Your task to perform on an android device: open app "ColorNote Notepad Notes" (install if not already installed) Image 0: 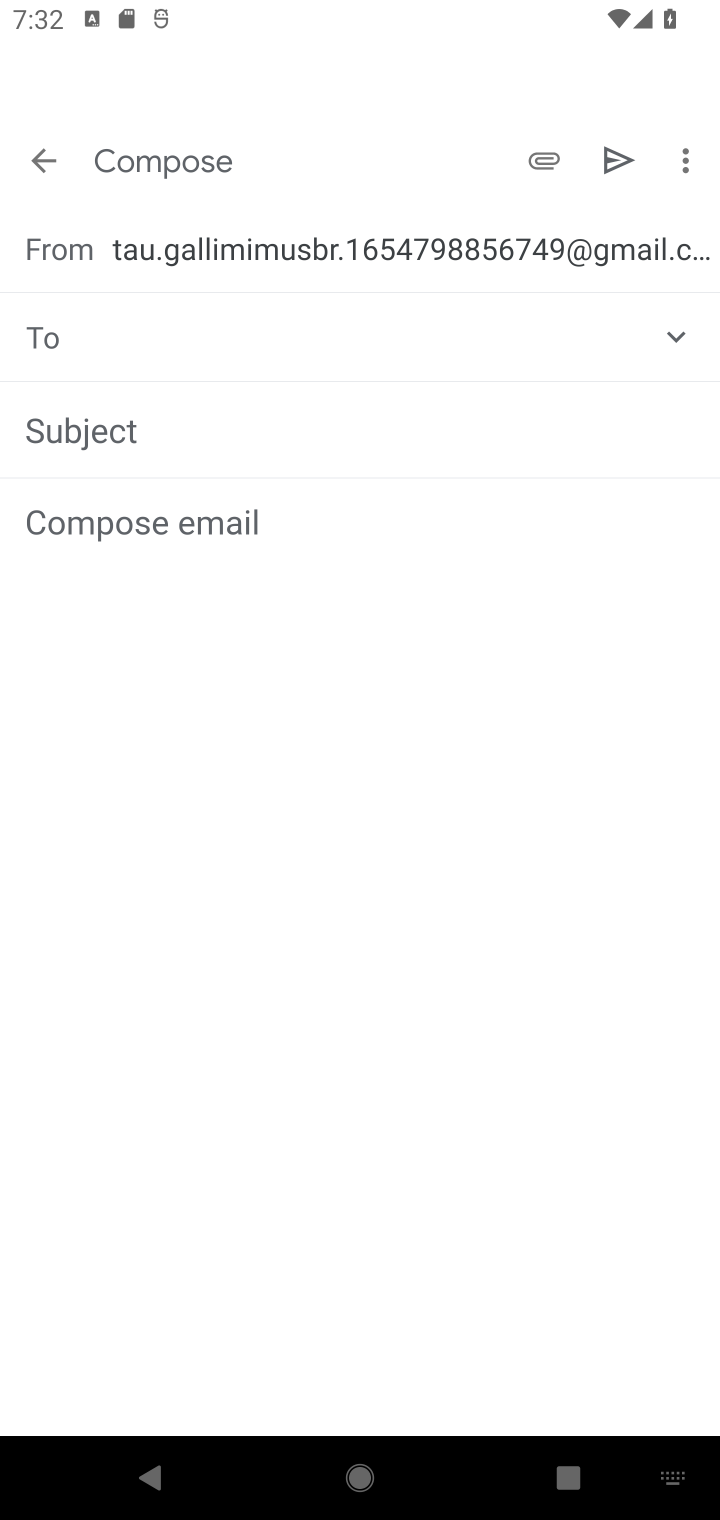
Step 0: press home button
Your task to perform on an android device: open app "ColorNote Notepad Notes" (install if not already installed) Image 1: 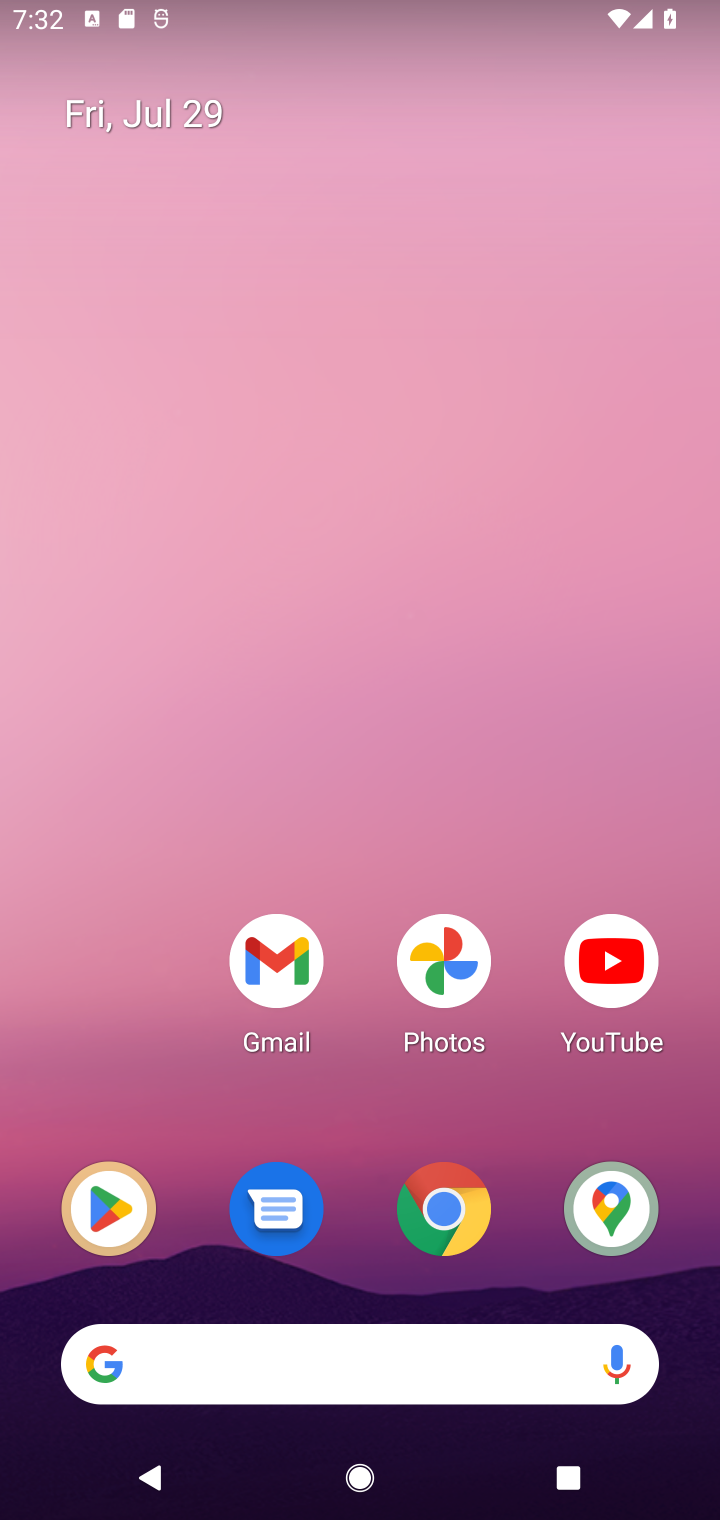
Step 1: click (127, 1198)
Your task to perform on an android device: open app "ColorNote Notepad Notes" (install if not already installed) Image 2: 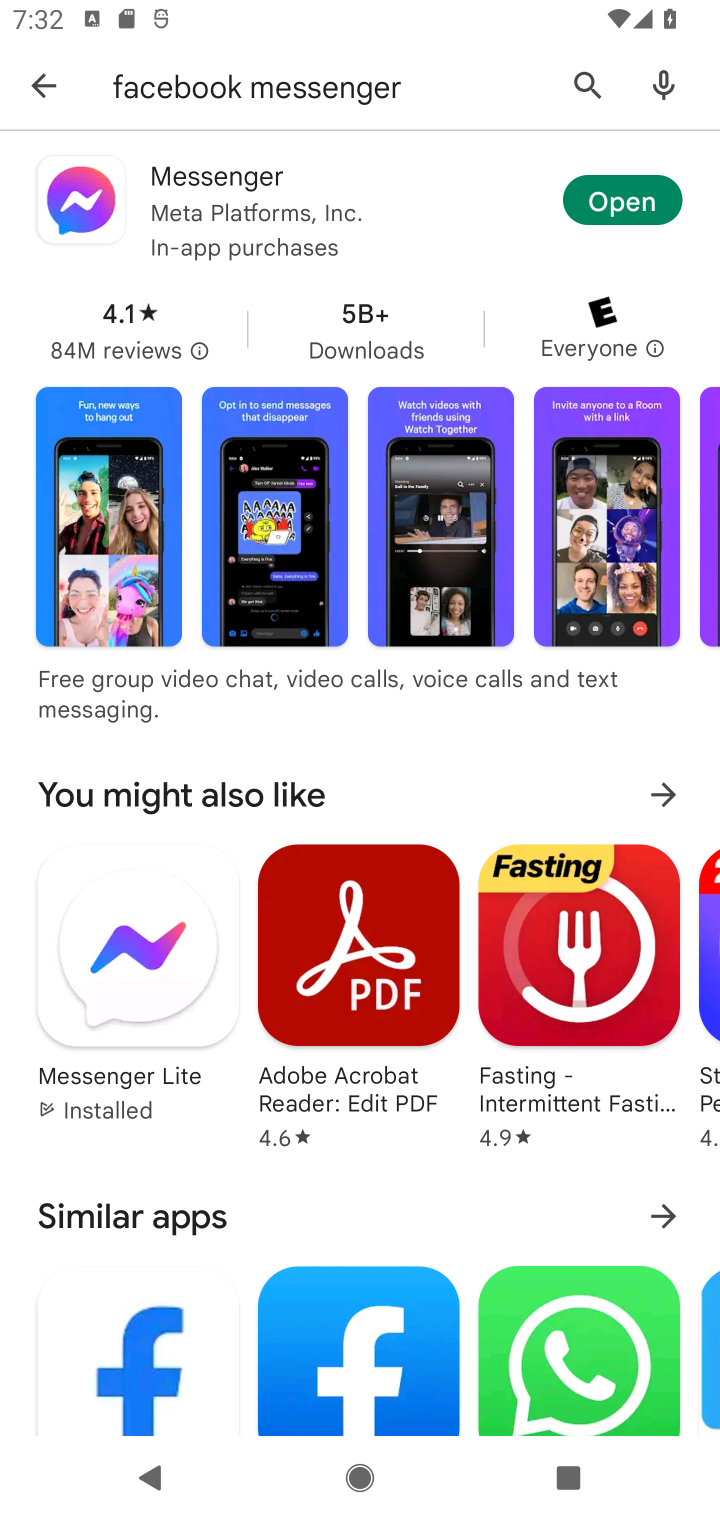
Step 2: click (571, 79)
Your task to perform on an android device: open app "ColorNote Notepad Notes" (install if not already installed) Image 3: 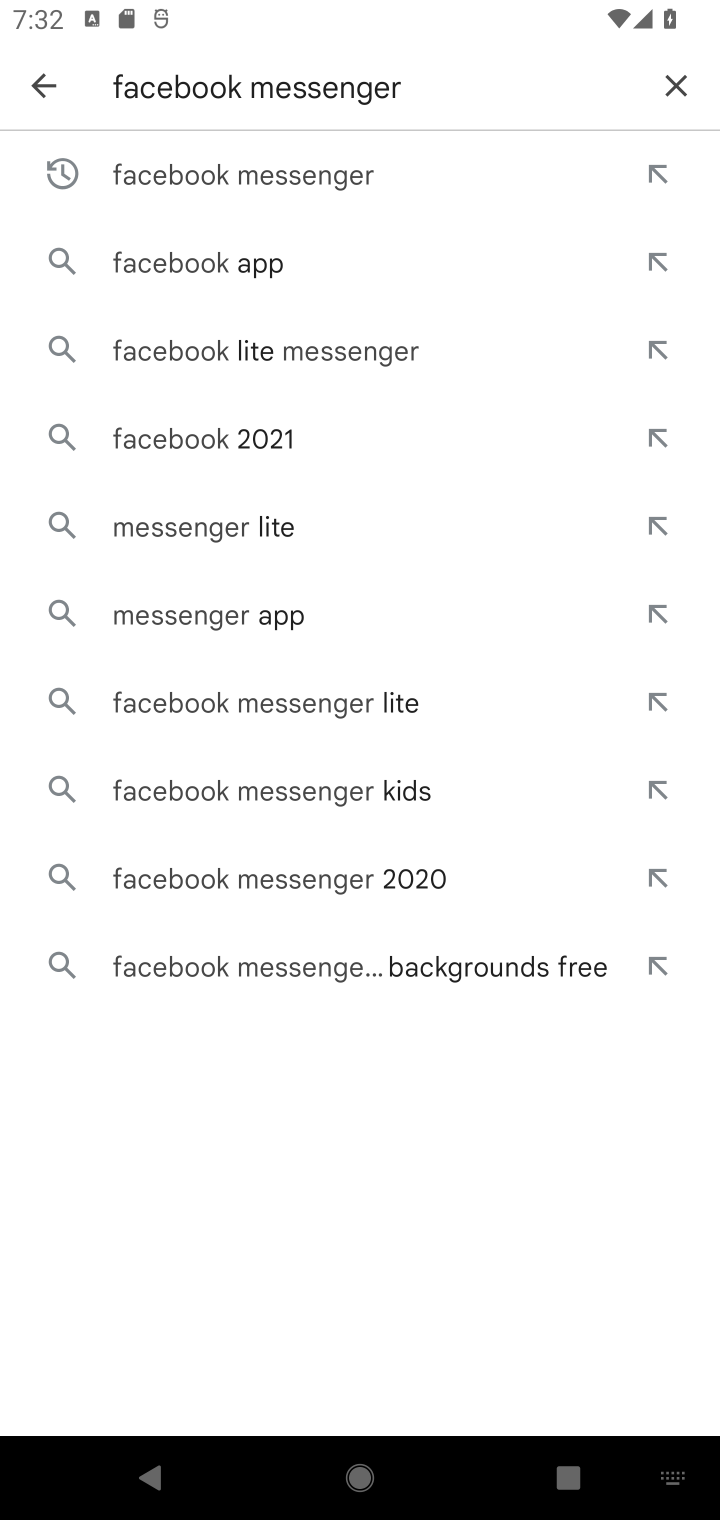
Step 3: click (666, 92)
Your task to perform on an android device: open app "ColorNote Notepad Notes" (install if not already installed) Image 4: 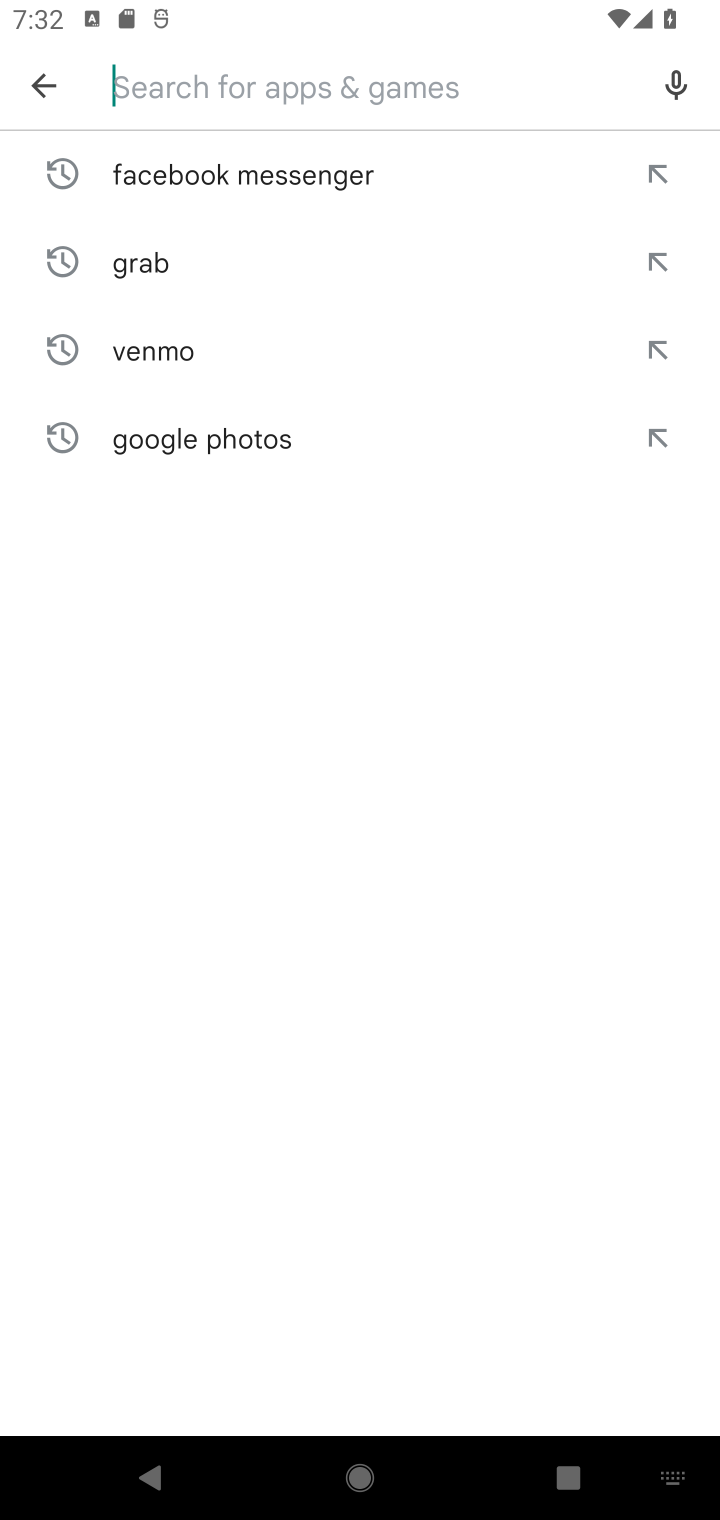
Step 4: type "ColorNote Notepad Notes"
Your task to perform on an android device: open app "ColorNote Notepad Notes" (install if not already installed) Image 5: 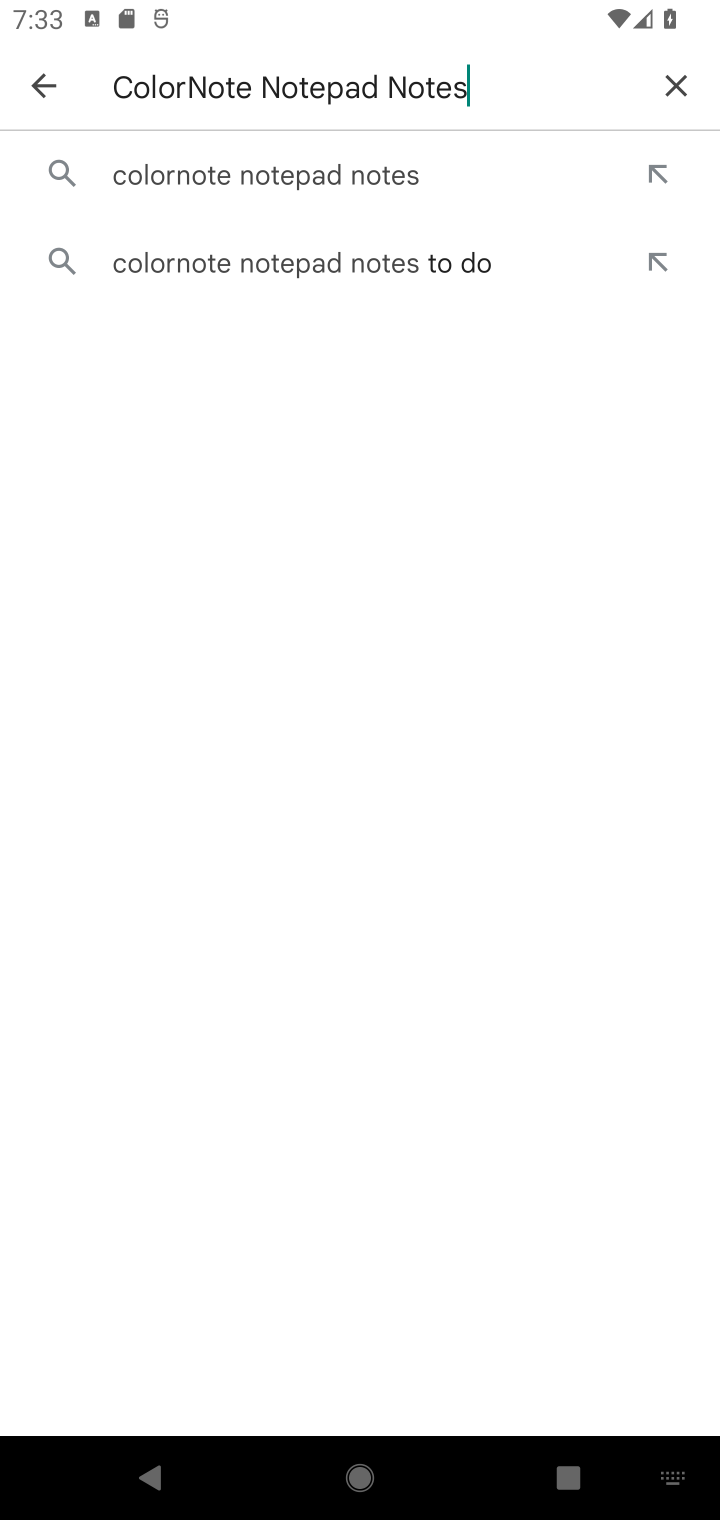
Step 5: click (258, 175)
Your task to perform on an android device: open app "ColorNote Notepad Notes" (install if not already installed) Image 6: 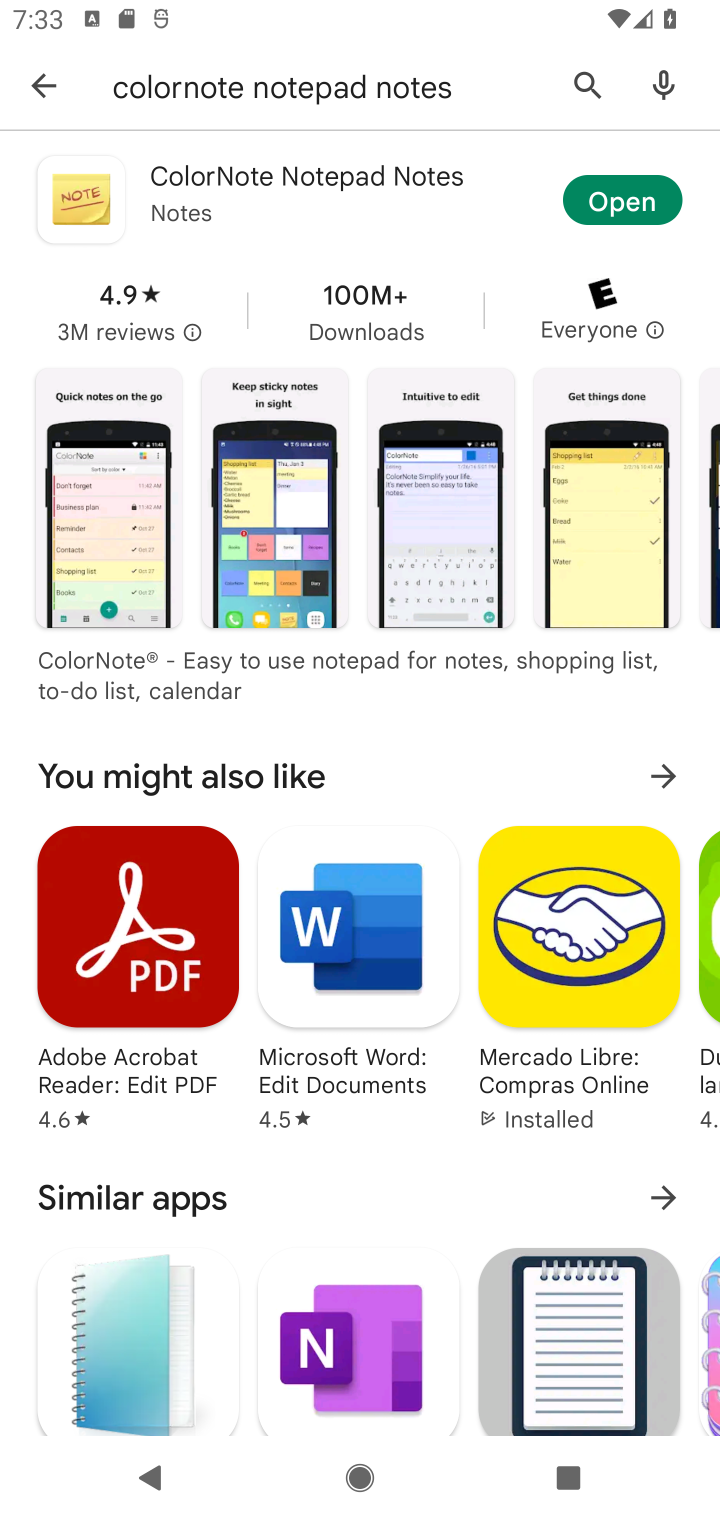
Step 6: click (633, 220)
Your task to perform on an android device: open app "ColorNote Notepad Notes" (install if not already installed) Image 7: 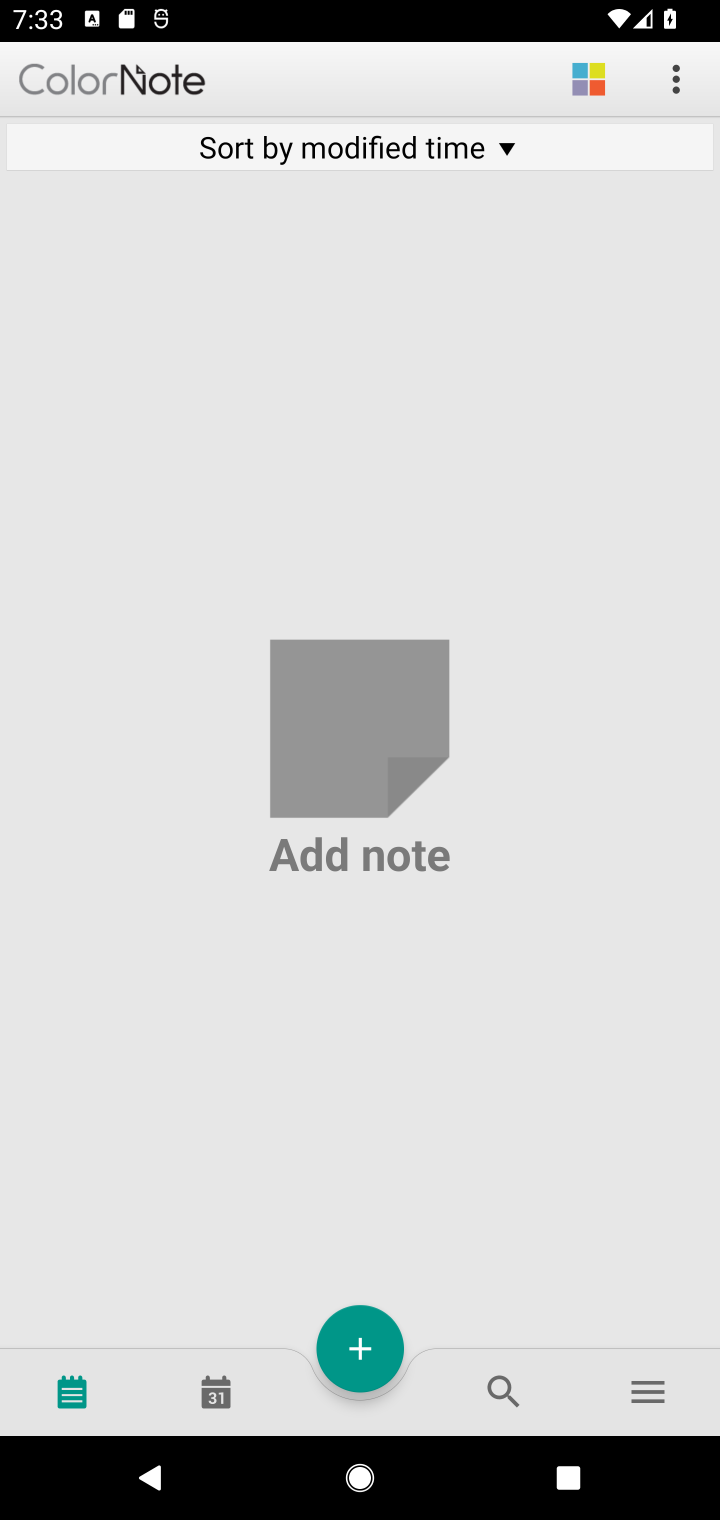
Step 7: task complete